Your task to perform on an android device: change your default location settings in chrome Image 0: 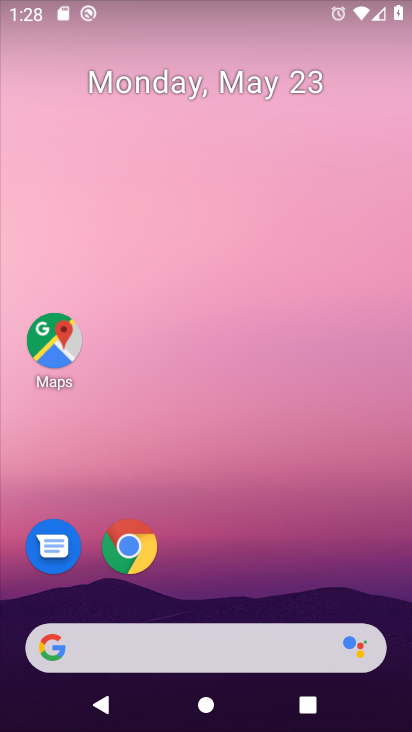
Step 0: drag from (233, 610) to (231, 92)
Your task to perform on an android device: change your default location settings in chrome Image 1: 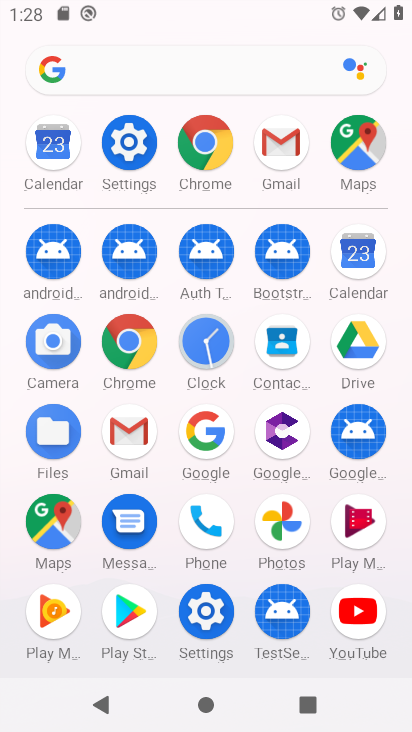
Step 1: click (218, 155)
Your task to perform on an android device: change your default location settings in chrome Image 2: 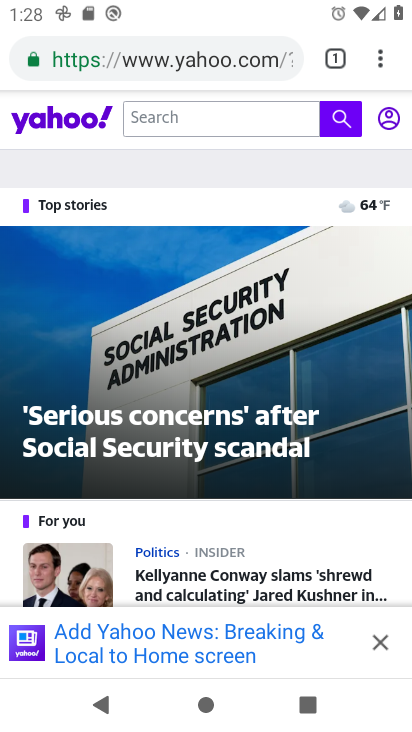
Step 2: click (380, 55)
Your task to perform on an android device: change your default location settings in chrome Image 3: 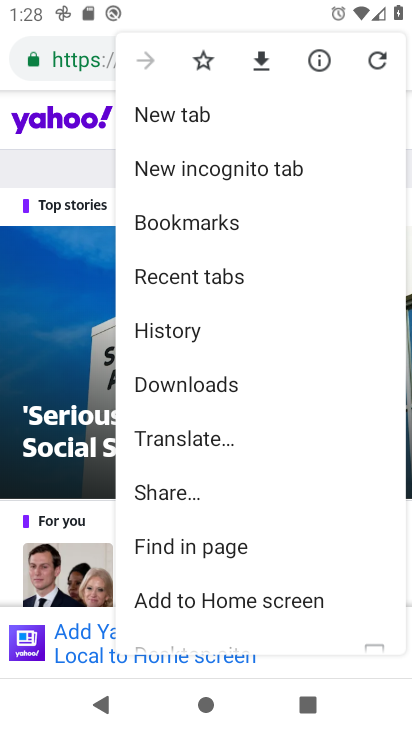
Step 3: drag from (263, 526) to (260, 314)
Your task to perform on an android device: change your default location settings in chrome Image 4: 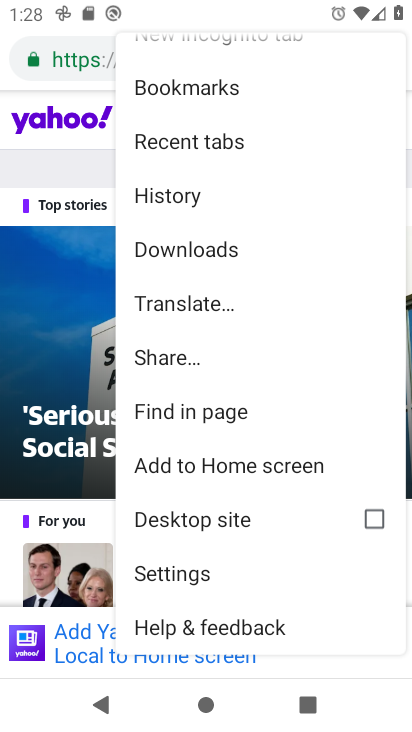
Step 4: click (232, 563)
Your task to perform on an android device: change your default location settings in chrome Image 5: 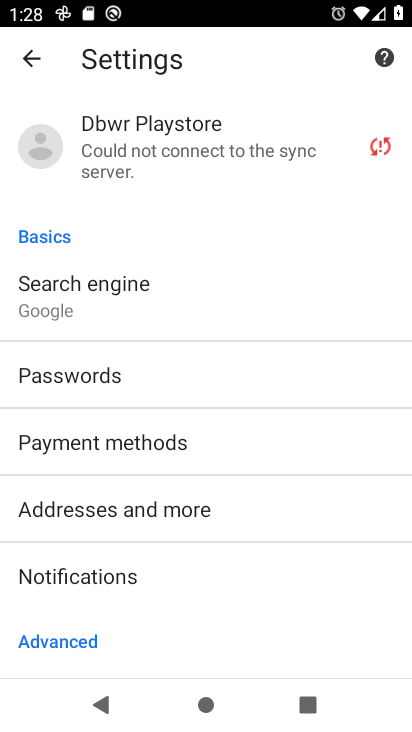
Step 5: drag from (222, 618) to (198, 477)
Your task to perform on an android device: change your default location settings in chrome Image 6: 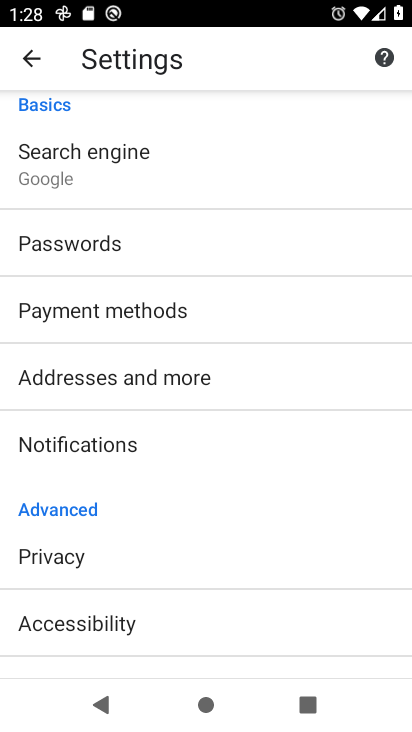
Step 6: drag from (150, 540) to (149, 369)
Your task to perform on an android device: change your default location settings in chrome Image 7: 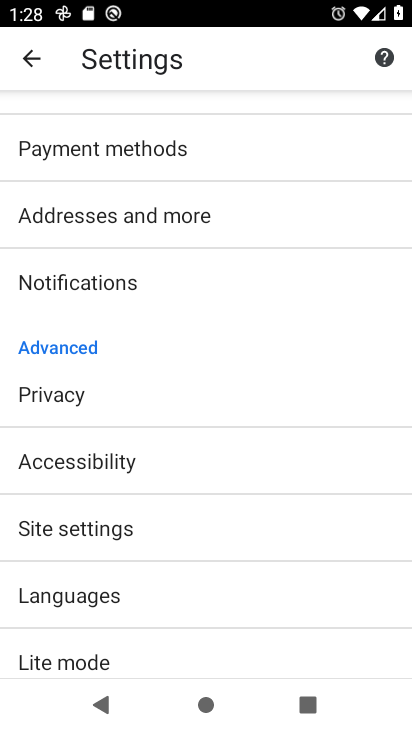
Step 7: click (149, 530)
Your task to perform on an android device: change your default location settings in chrome Image 8: 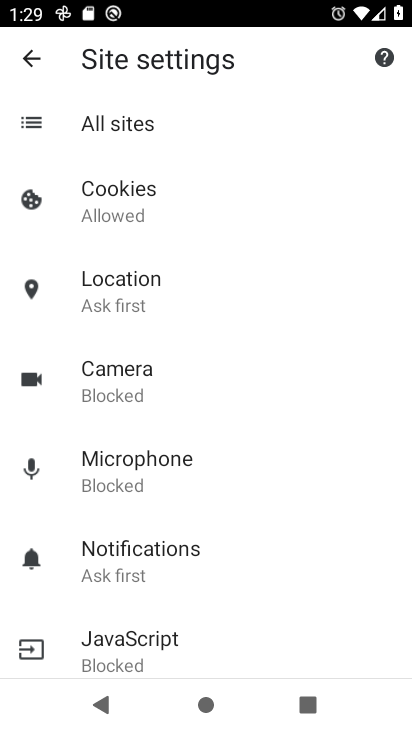
Step 8: click (174, 289)
Your task to perform on an android device: change your default location settings in chrome Image 9: 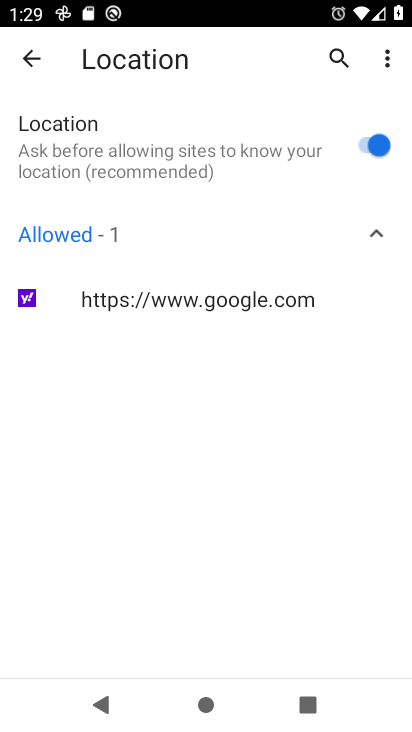
Step 9: click (362, 145)
Your task to perform on an android device: change your default location settings in chrome Image 10: 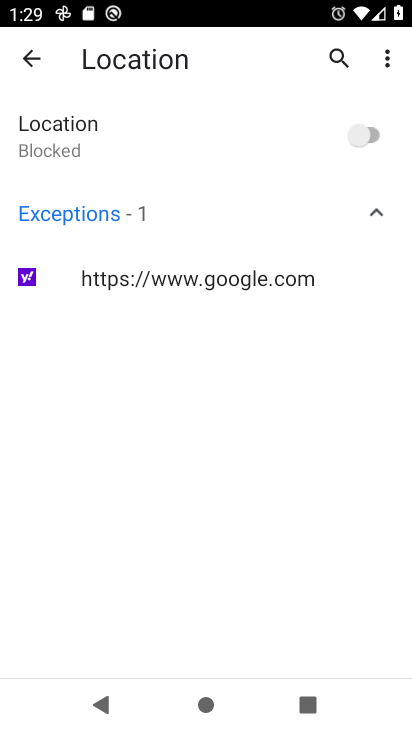
Step 10: task complete